Your task to perform on an android device: allow notifications from all sites in the chrome app Image 0: 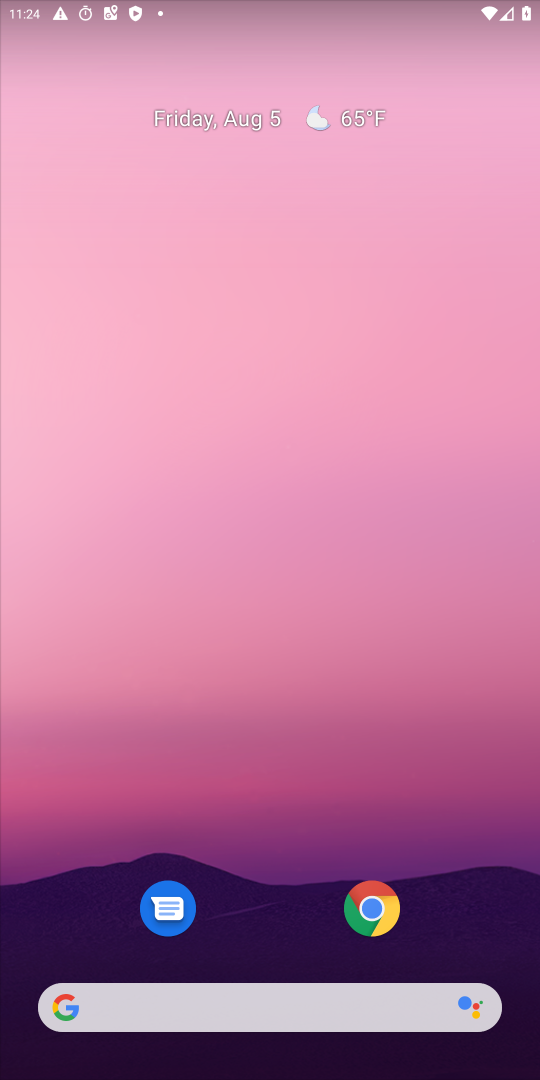
Step 0: click (390, 907)
Your task to perform on an android device: allow notifications from all sites in the chrome app Image 1: 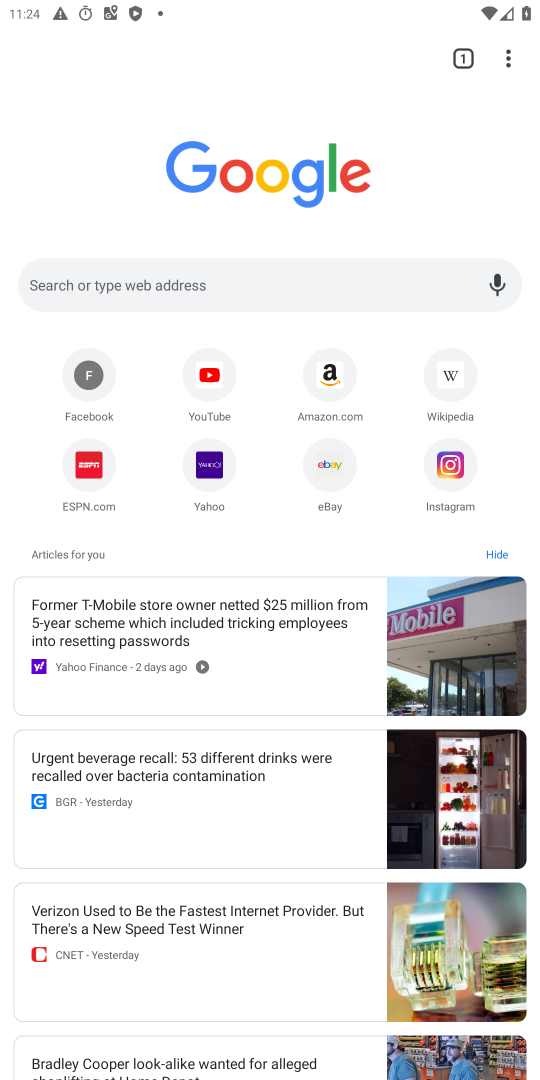
Step 1: click (512, 54)
Your task to perform on an android device: allow notifications from all sites in the chrome app Image 2: 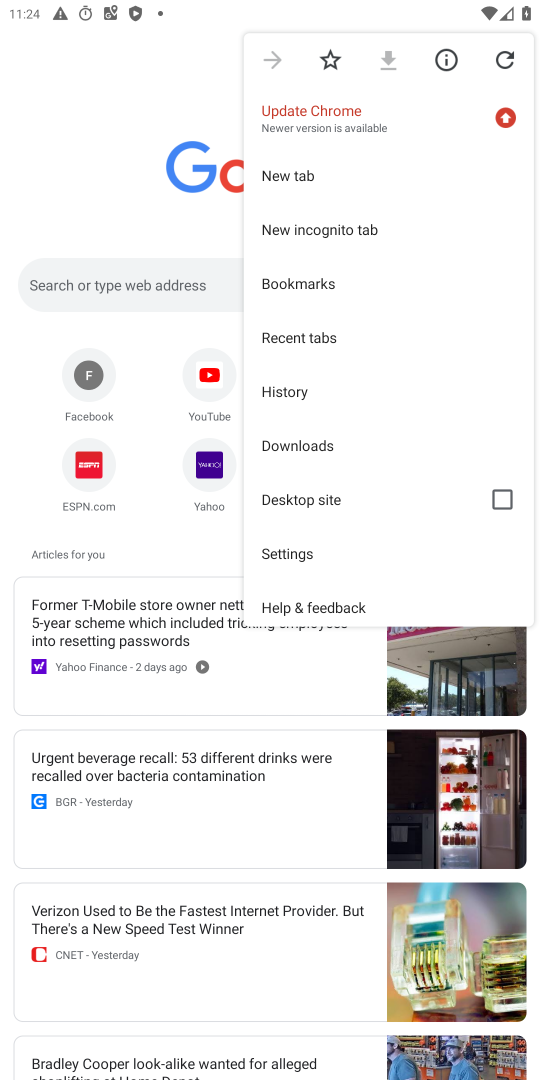
Step 2: click (296, 552)
Your task to perform on an android device: allow notifications from all sites in the chrome app Image 3: 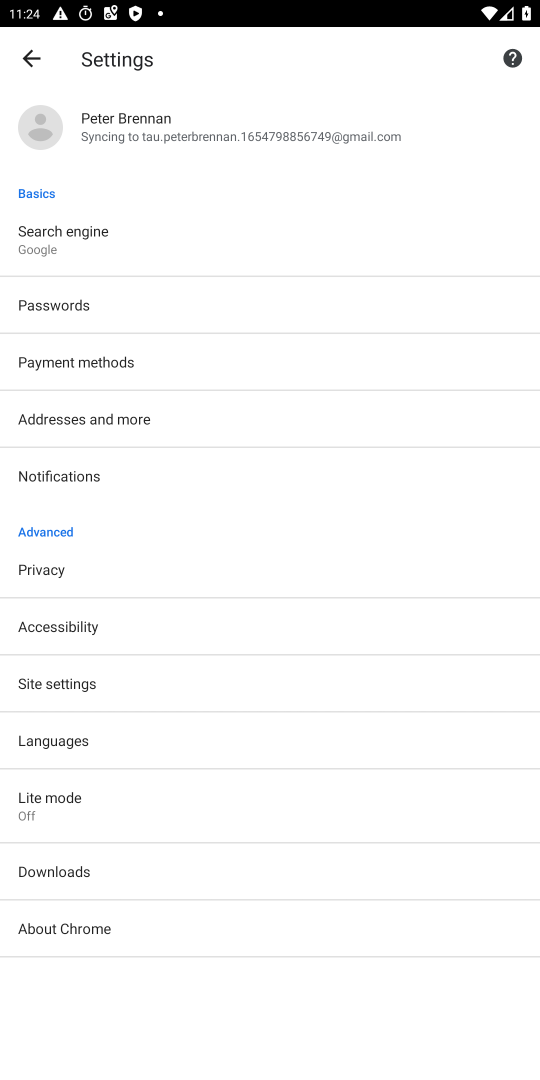
Step 3: click (62, 682)
Your task to perform on an android device: allow notifications from all sites in the chrome app Image 4: 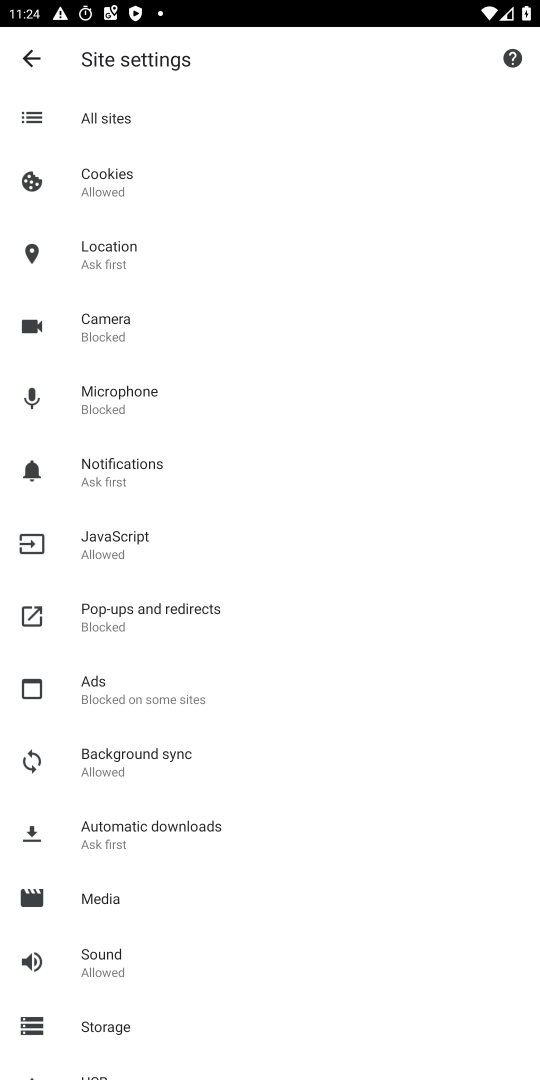
Step 4: task complete